Your task to perform on an android device: Go to Wikipedia Image 0: 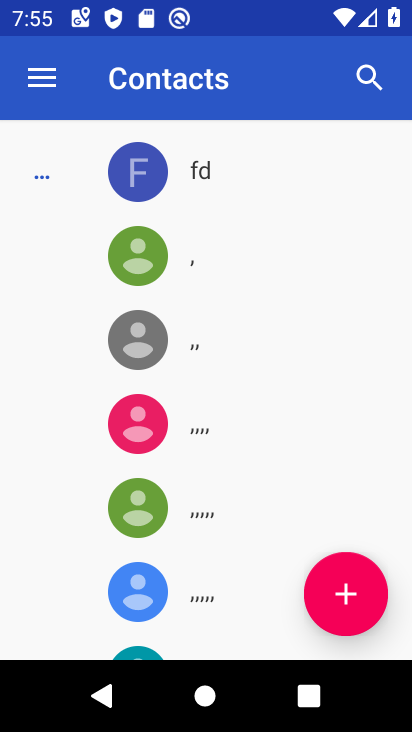
Step 0: press home button
Your task to perform on an android device: Go to Wikipedia Image 1: 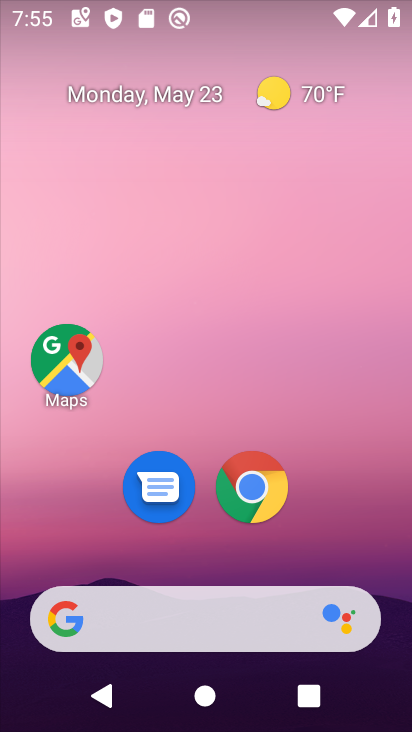
Step 1: click (258, 489)
Your task to perform on an android device: Go to Wikipedia Image 2: 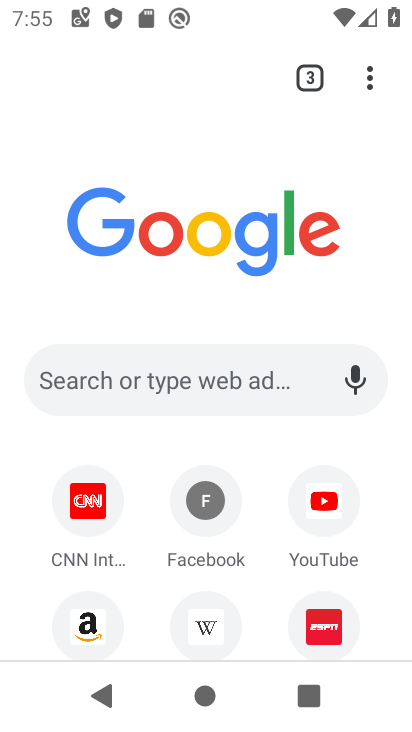
Step 2: click (222, 619)
Your task to perform on an android device: Go to Wikipedia Image 3: 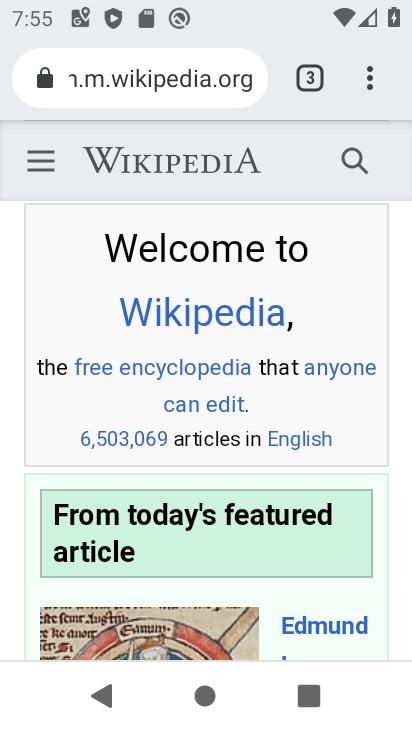
Step 3: task complete